Your task to perform on an android device: Search for vegetarian restaurants on Maps Image 0: 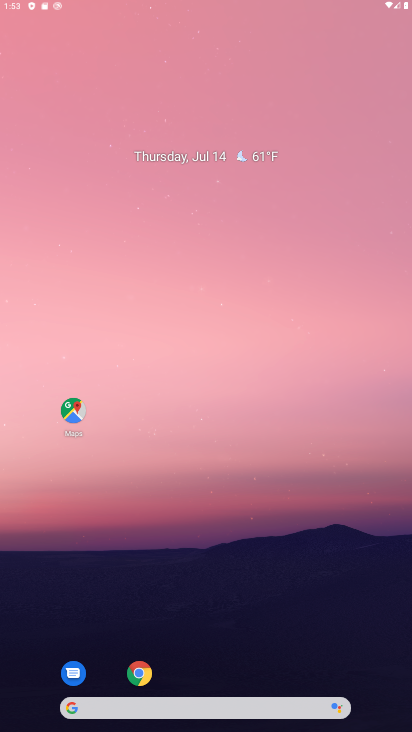
Step 0: click (211, 60)
Your task to perform on an android device: Search for vegetarian restaurants on Maps Image 1: 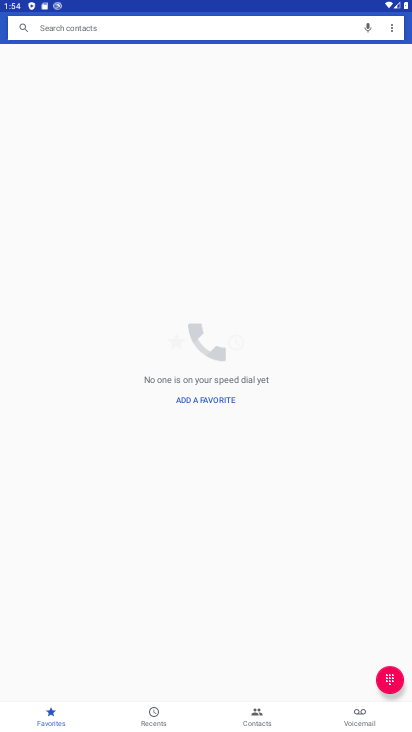
Step 1: press home button
Your task to perform on an android device: Search for vegetarian restaurants on Maps Image 2: 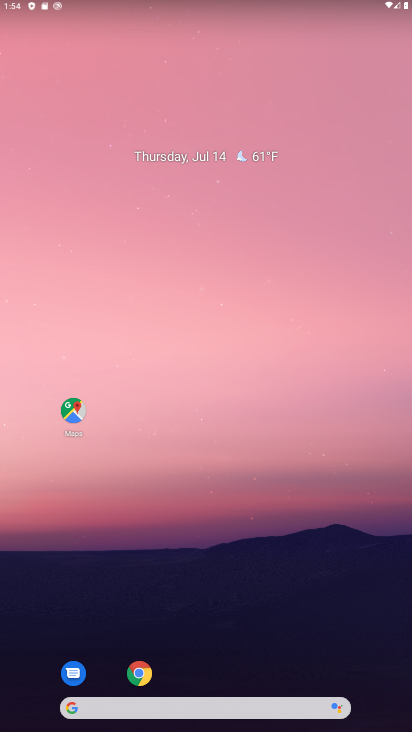
Step 2: click (61, 418)
Your task to perform on an android device: Search for vegetarian restaurants on Maps Image 3: 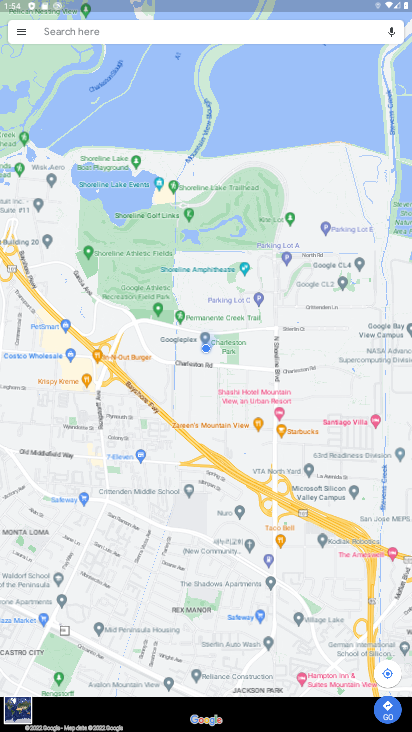
Step 3: click (273, 33)
Your task to perform on an android device: Search for vegetarian restaurants on Maps Image 4: 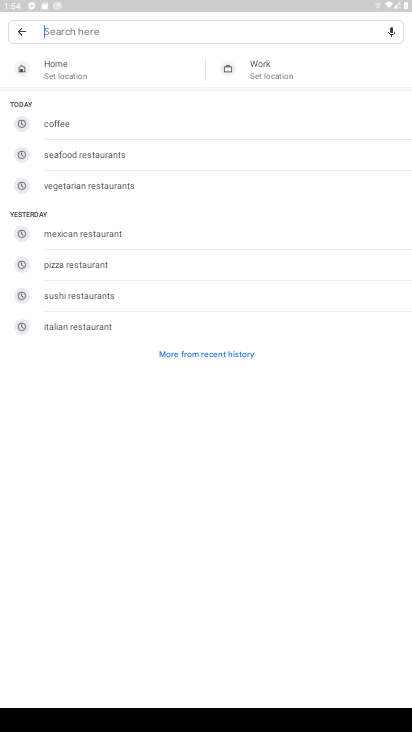
Step 4: click (150, 182)
Your task to perform on an android device: Search for vegetarian restaurants on Maps Image 5: 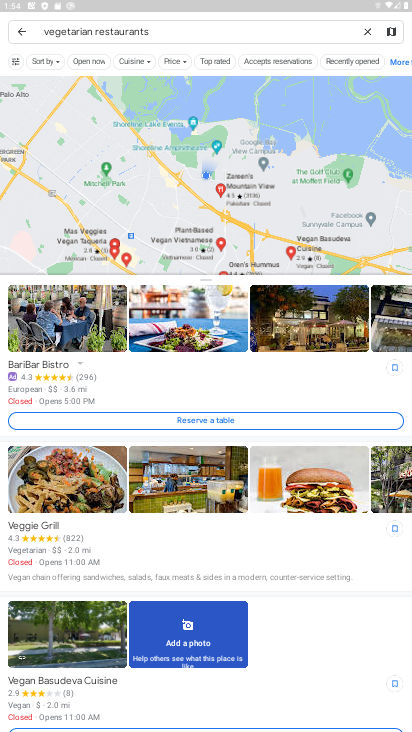
Step 5: task complete